Your task to perform on an android device: turn on airplane mode Image 0: 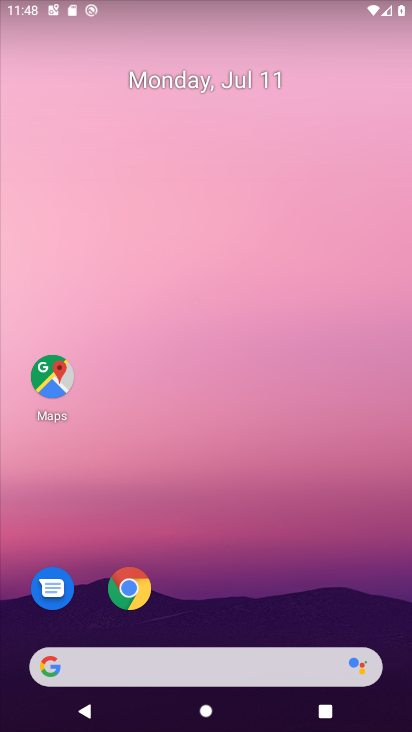
Step 0: drag from (241, 674) to (200, 54)
Your task to perform on an android device: turn on airplane mode Image 1: 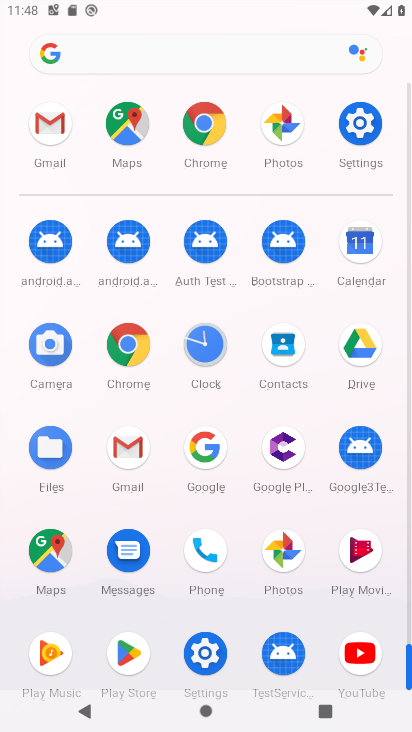
Step 1: click (350, 121)
Your task to perform on an android device: turn on airplane mode Image 2: 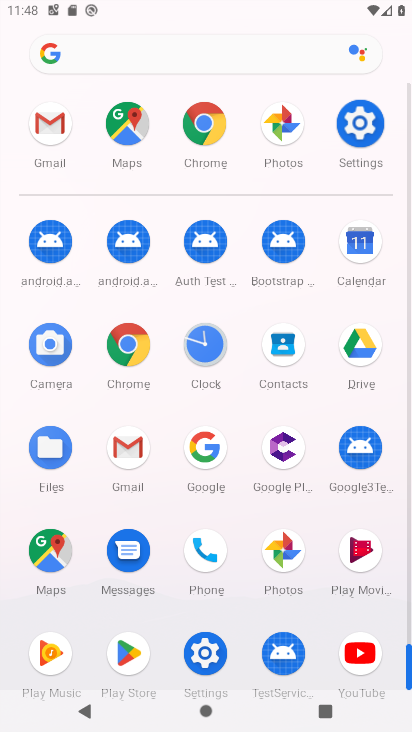
Step 2: click (349, 120)
Your task to perform on an android device: turn on airplane mode Image 3: 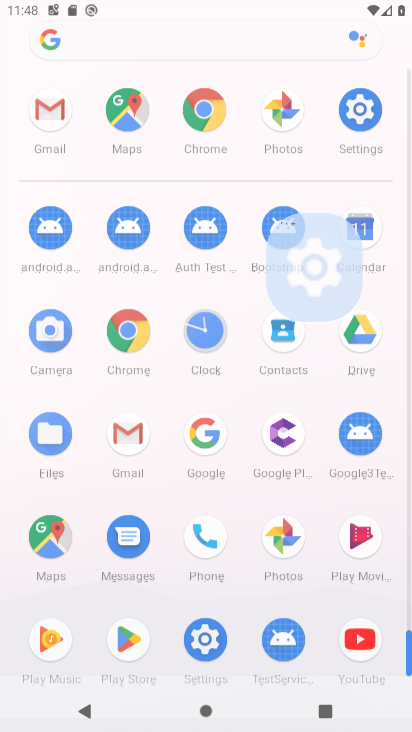
Step 3: click (354, 119)
Your task to perform on an android device: turn on airplane mode Image 4: 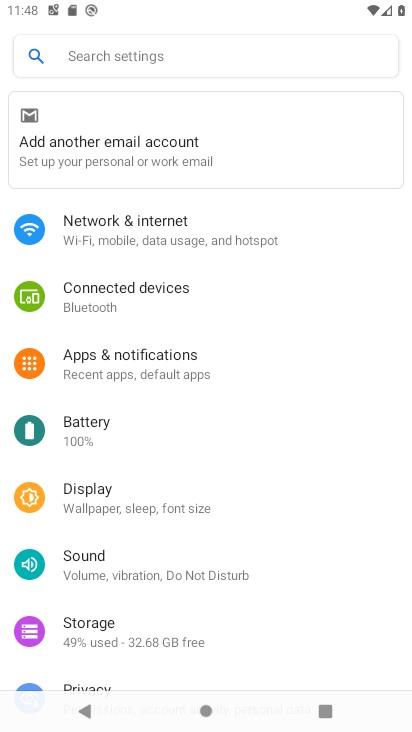
Step 4: drag from (139, 527) to (81, 234)
Your task to perform on an android device: turn on airplane mode Image 5: 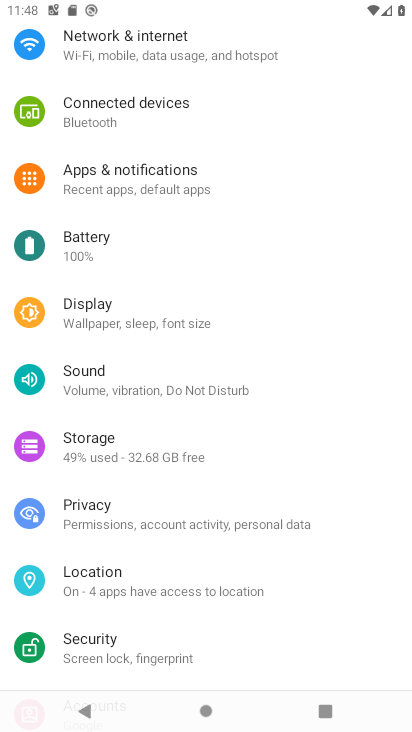
Step 5: drag from (116, 444) to (79, 71)
Your task to perform on an android device: turn on airplane mode Image 6: 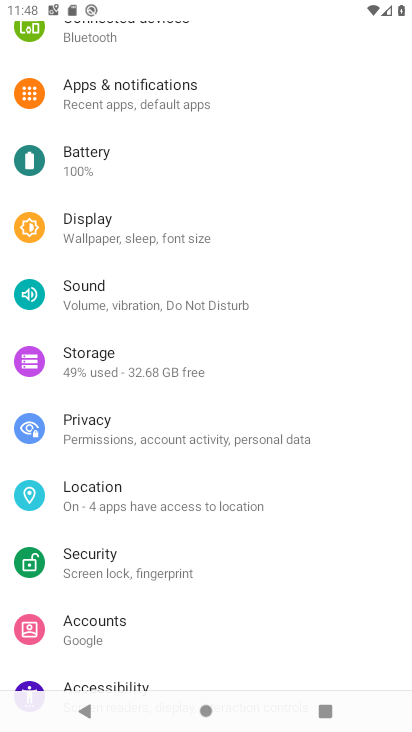
Step 6: click (178, 657)
Your task to perform on an android device: turn on airplane mode Image 7: 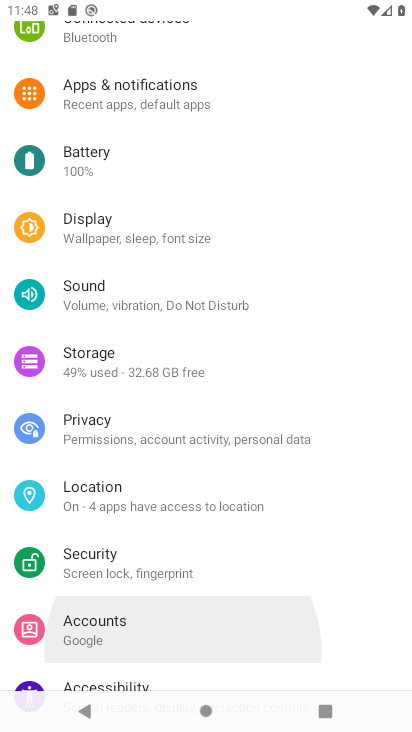
Step 7: drag from (82, 241) to (105, 581)
Your task to perform on an android device: turn on airplane mode Image 8: 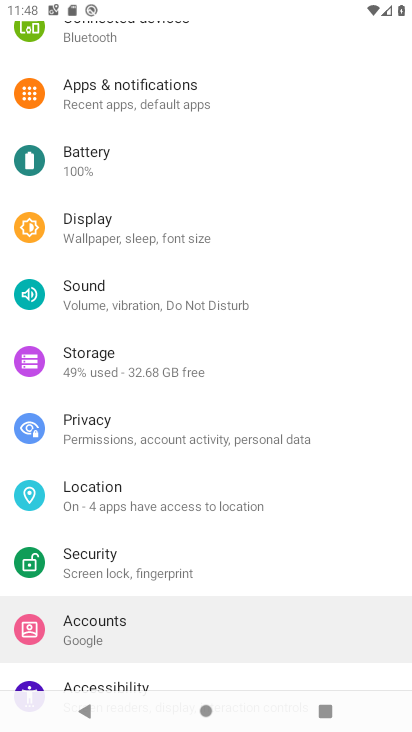
Step 8: drag from (136, 193) to (214, 525)
Your task to perform on an android device: turn on airplane mode Image 9: 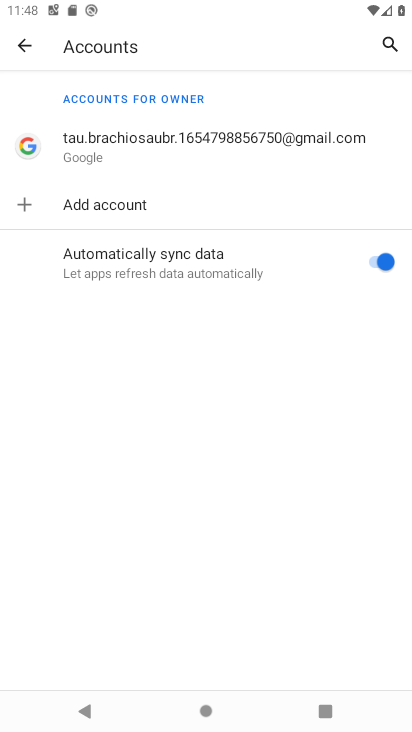
Step 9: click (17, 41)
Your task to perform on an android device: turn on airplane mode Image 10: 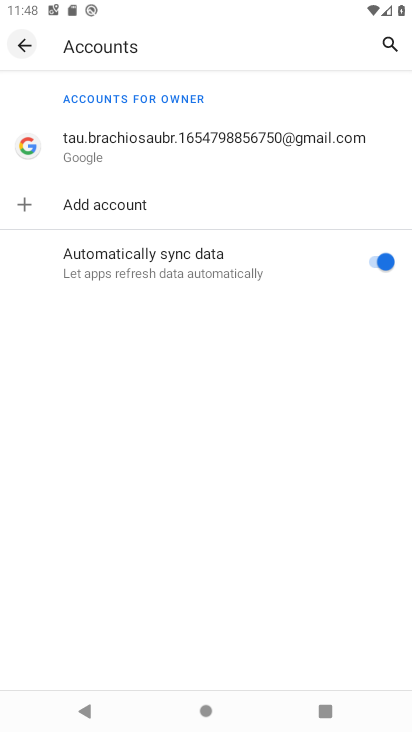
Step 10: click (17, 41)
Your task to perform on an android device: turn on airplane mode Image 11: 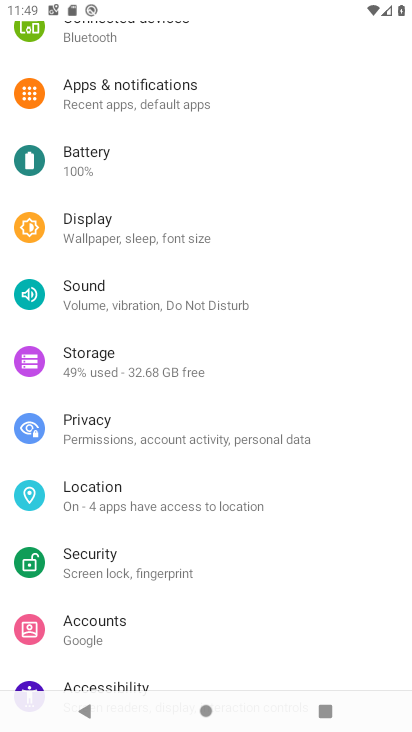
Step 11: click (267, 585)
Your task to perform on an android device: turn on airplane mode Image 12: 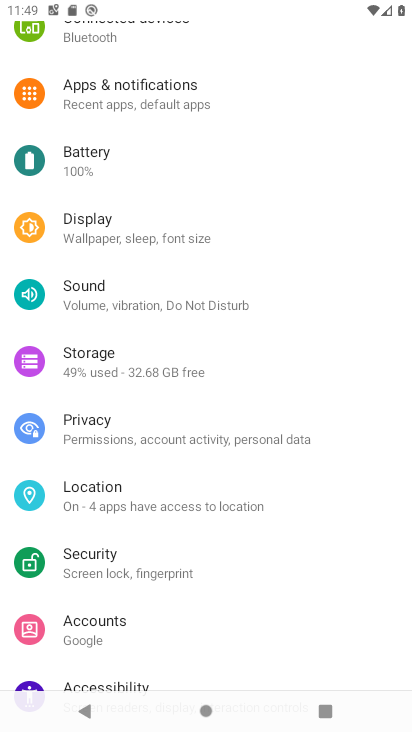
Step 12: drag from (112, 206) to (190, 554)
Your task to perform on an android device: turn on airplane mode Image 13: 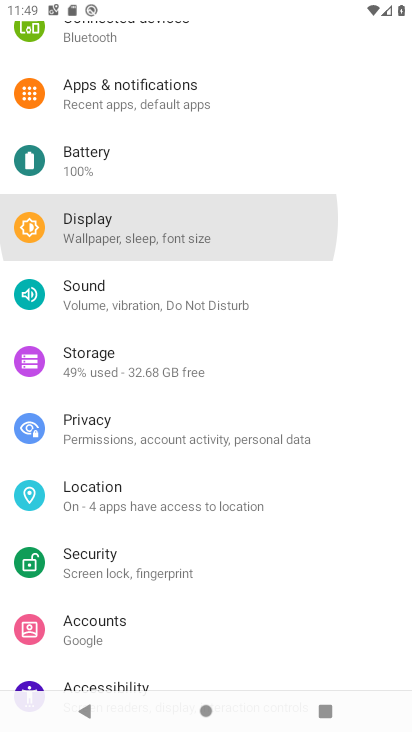
Step 13: drag from (84, 178) to (145, 594)
Your task to perform on an android device: turn on airplane mode Image 14: 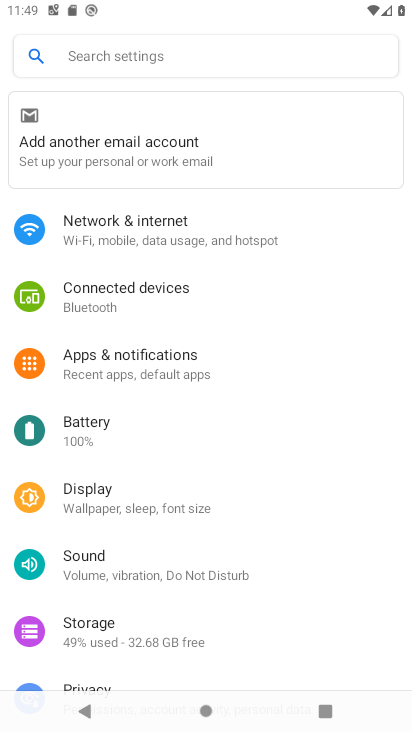
Step 14: drag from (89, 508) to (105, 166)
Your task to perform on an android device: turn on airplane mode Image 15: 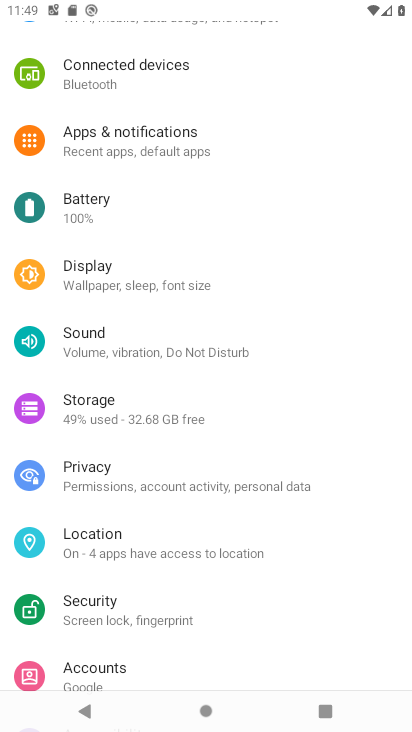
Step 15: drag from (134, 226) to (194, 434)
Your task to perform on an android device: turn on airplane mode Image 16: 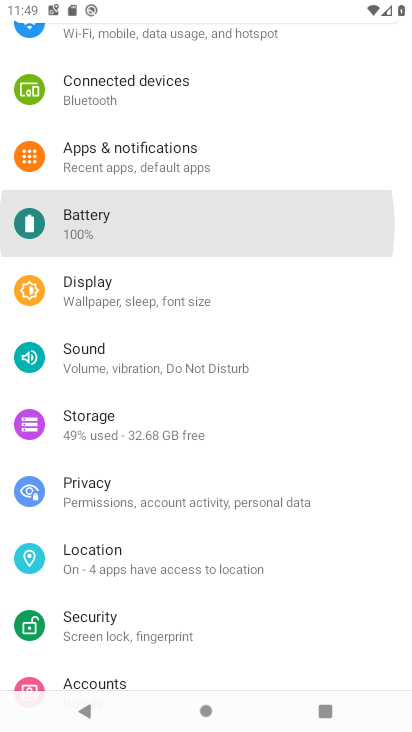
Step 16: drag from (153, 99) to (225, 597)
Your task to perform on an android device: turn on airplane mode Image 17: 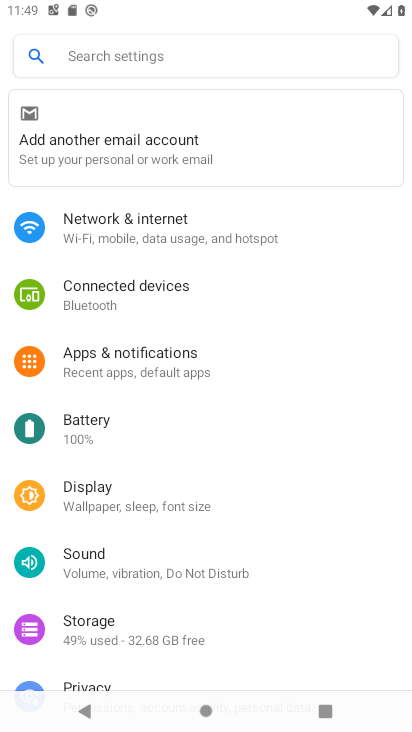
Step 17: drag from (142, 213) to (131, 412)
Your task to perform on an android device: turn on airplane mode Image 18: 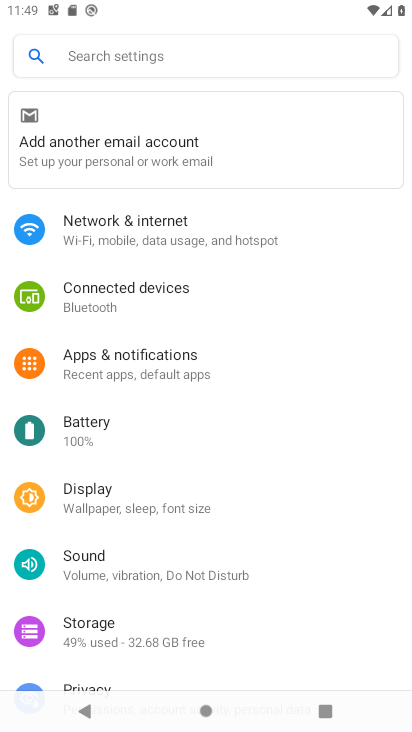
Step 18: click (120, 217)
Your task to perform on an android device: turn on airplane mode Image 19: 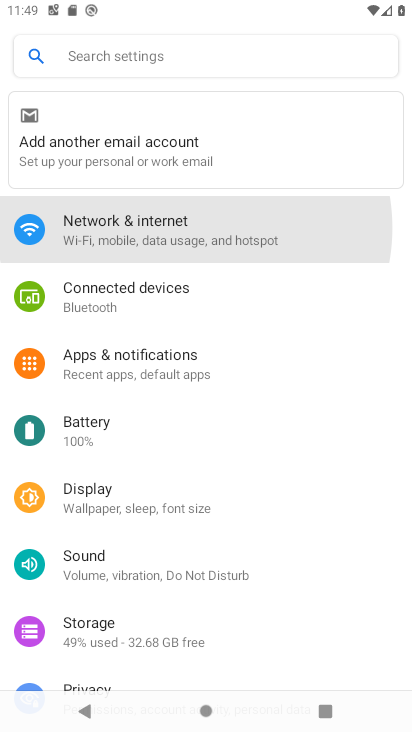
Step 19: click (131, 218)
Your task to perform on an android device: turn on airplane mode Image 20: 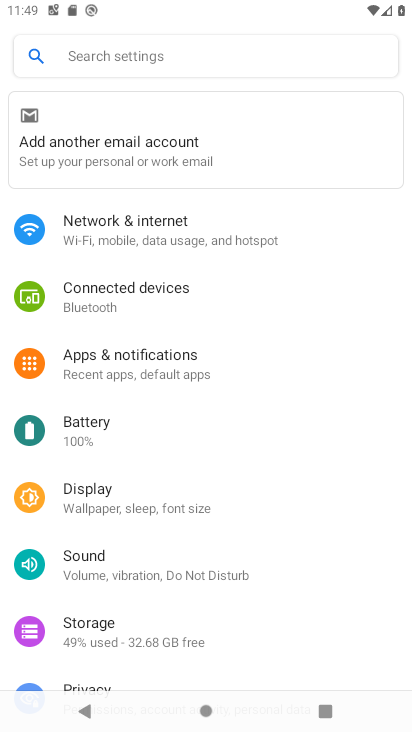
Step 20: click (135, 217)
Your task to perform on an android device: turn on airplane mode Image 21: 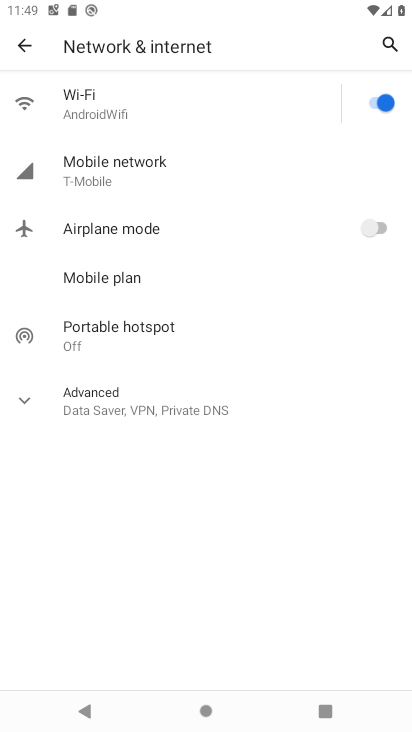
Step 21: task complete